Your task to perform on an android device: Open Google Maps and go to "Timeline" Image 0: 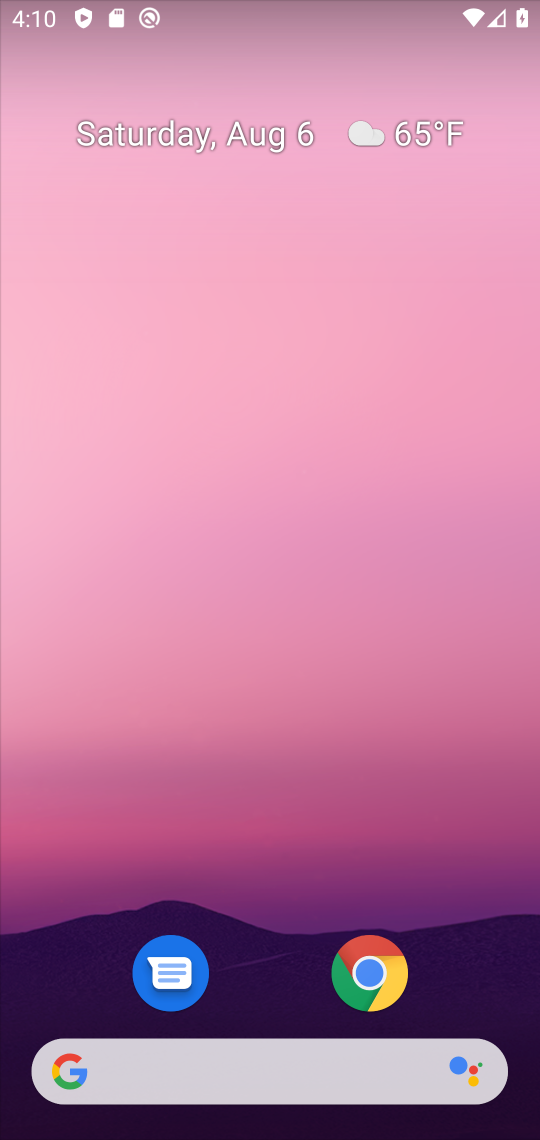
Step 0: drag from (262, 931) to (357, 134)
Your task to perform on an android device: Open Google Maps and go to "Timeline" Image 1: 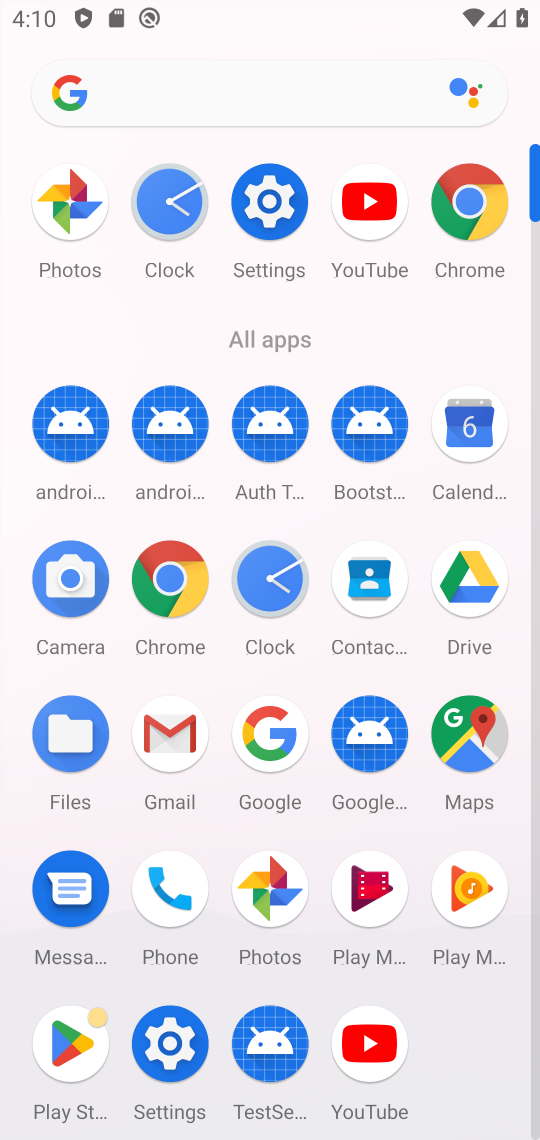
Step 1: click (481, 736)
Your task to perform on an android device: Open Google Maps and go to "Timeline" Image 2: 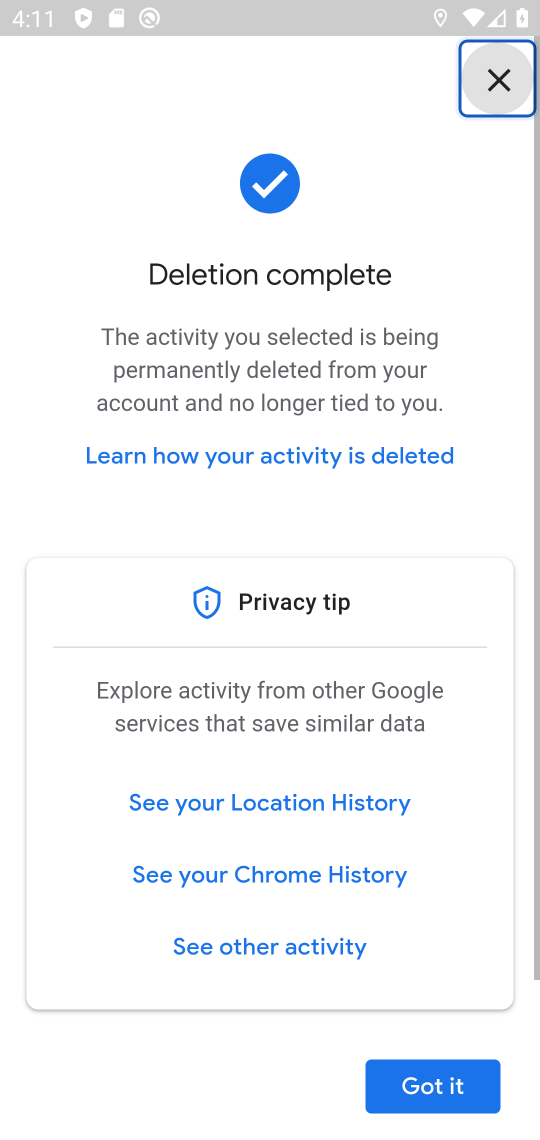
Step 2: click (417, 1108)
Your task to perform on an android device: Open Google Maps and go to "Timeline" Image 3: 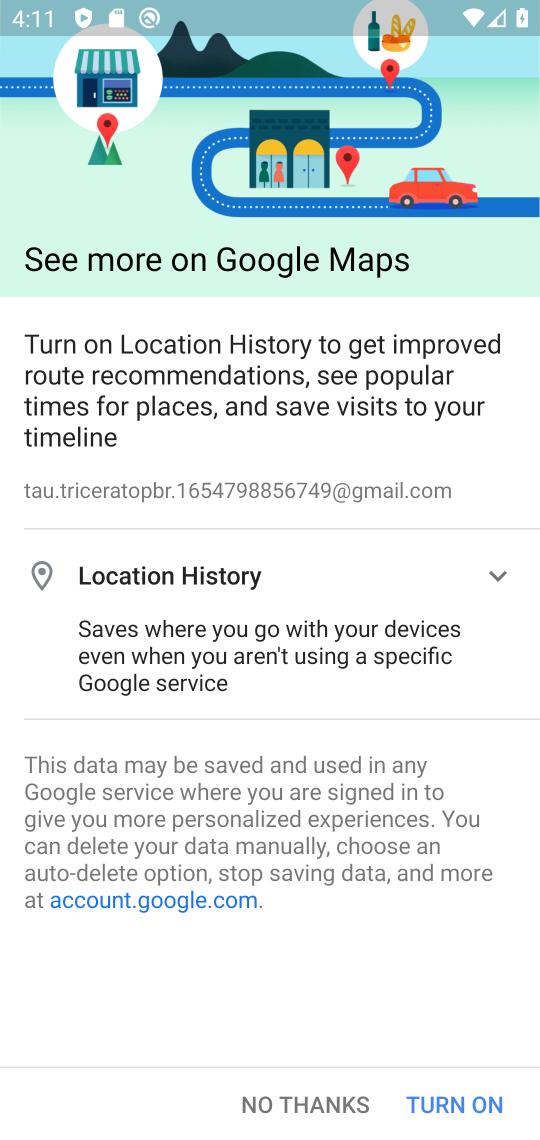
Step 3: click (321, 1103)
Your task to perform on an android device: Open Google Maps and go to "Timeline" Image 4: 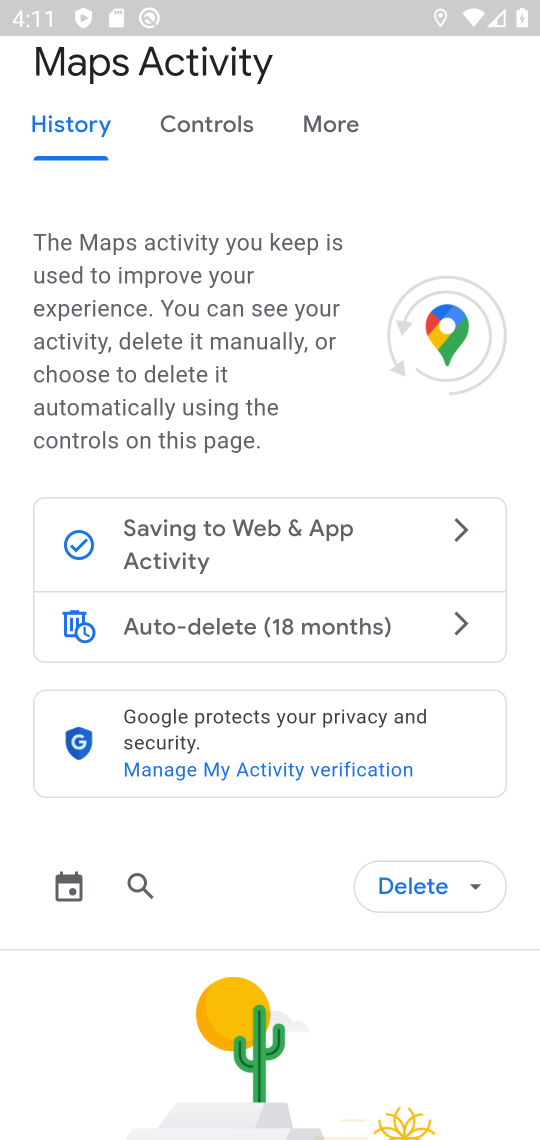
Step 4: press back button
Your task to perform on an android device: Open Google Maps and go to "Timeline" Image 5: 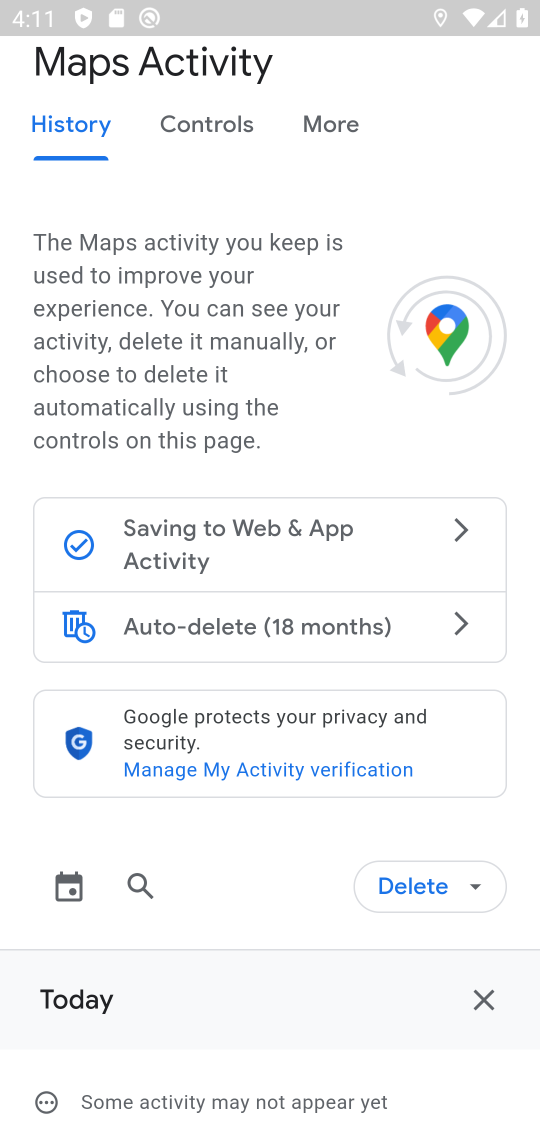
Step 5: press back button
Your task to perform on an android device: Open Google Maps and go to "Timeline" Image 6: 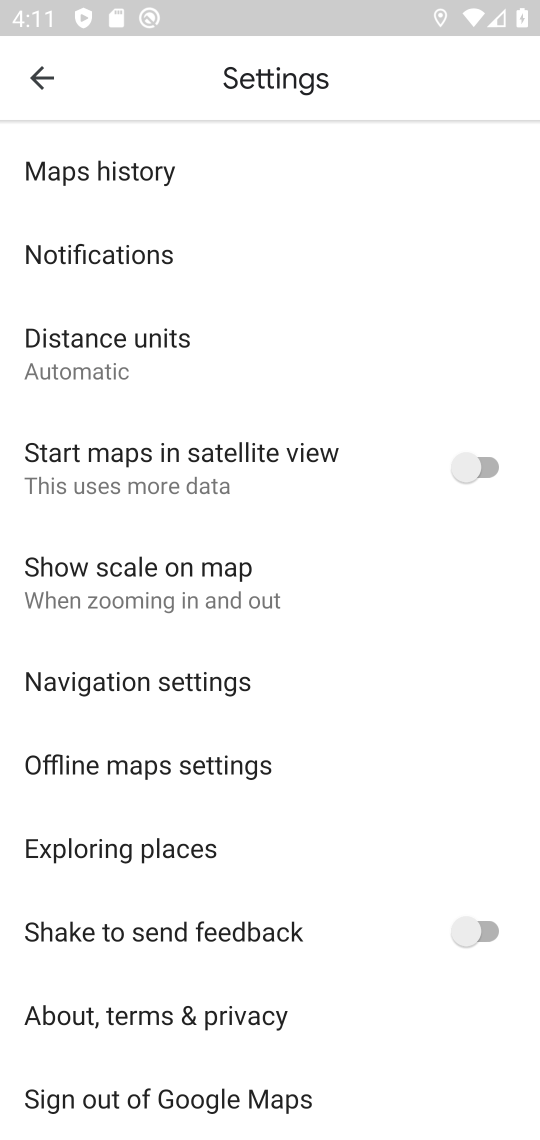
Step 6: click (22, 81)
Your task to perform on an android device: Open Google Maps and go to "Timeline" Image 7: 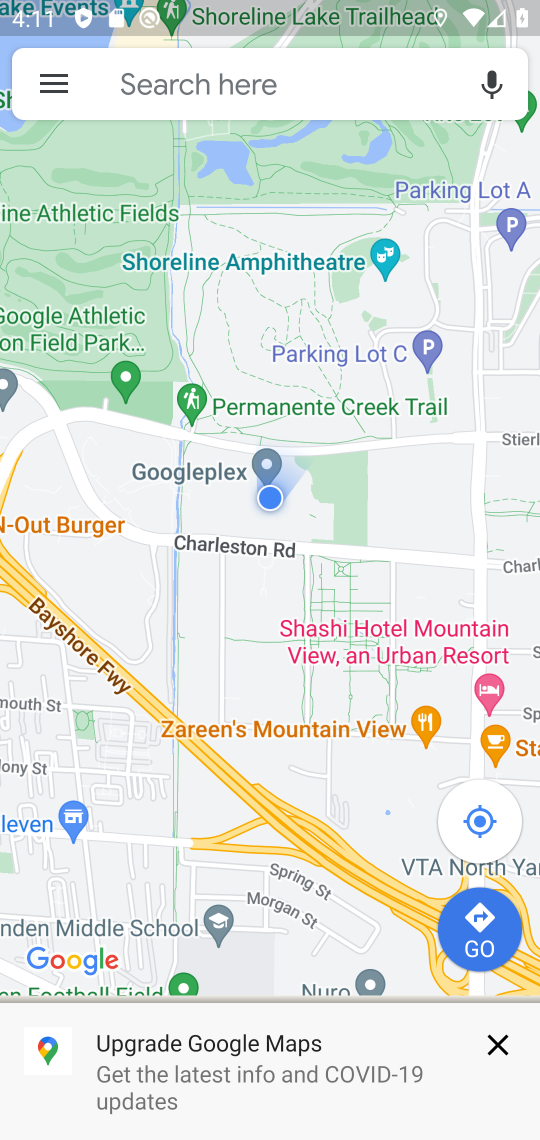
Step 7: click (50, 63)
Your task to perform on an android device: Open Google Maps and go to "Timeline" Image 8: 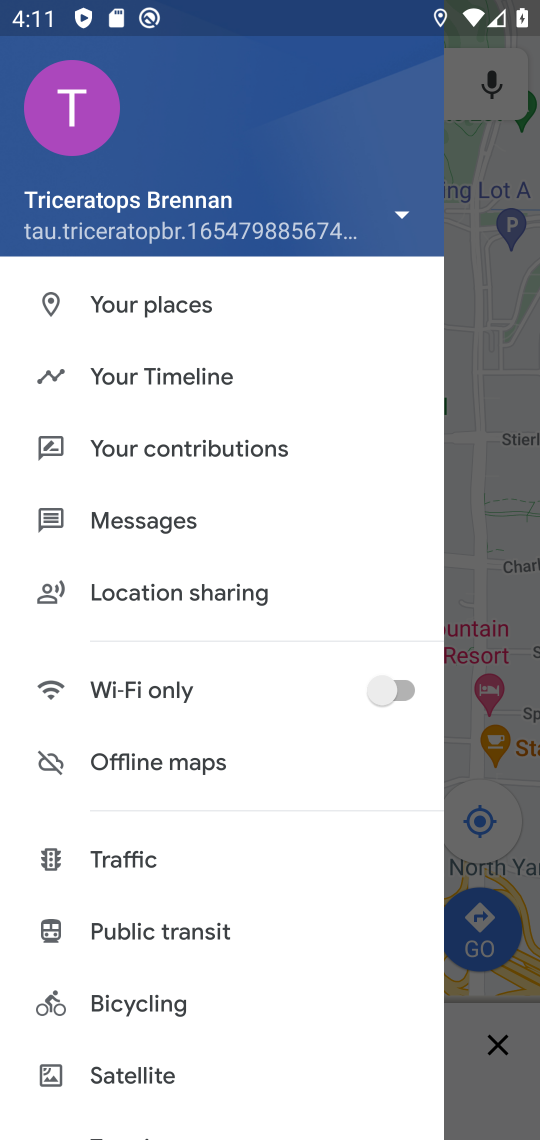
Step 8: click (157, 370)
Your task to perform on an android device: Open Google Maps and go to "Timeline" Image 9: 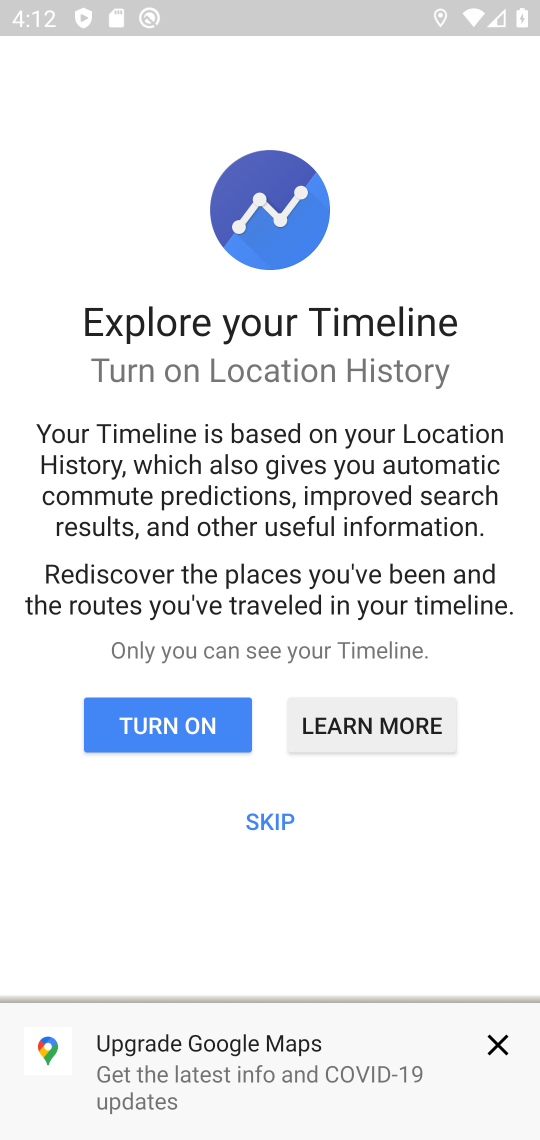
Step 9: click (212, 722)
Your task to perform on an android device: Open Google Maps and go to "Timeline" Image 10: 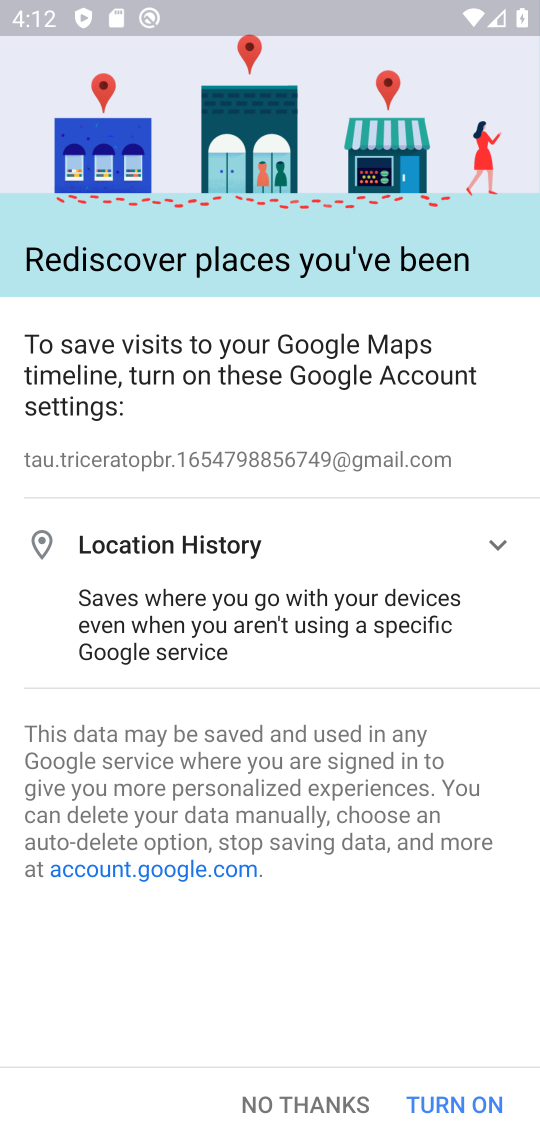
Step 10: click (305, 1105)
Your task to perform on an android device: Open Google Maps and go to "Timeline" Image 11: 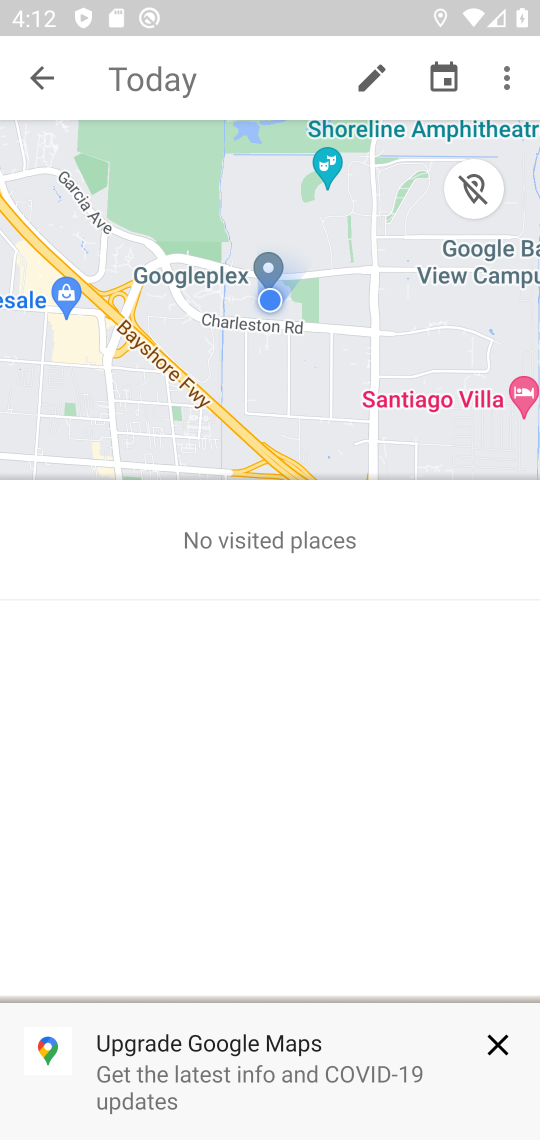
Step 11: task complete